Your task to perform on an android device: Go to wifi settings Image 0: 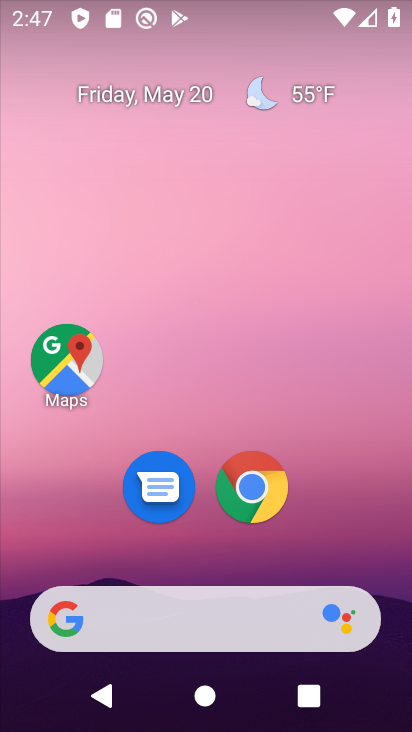
Step 0: drag from (302, 584) to (81, 0)
Your task to perform on an android device: Go to wifi settings Image 1: 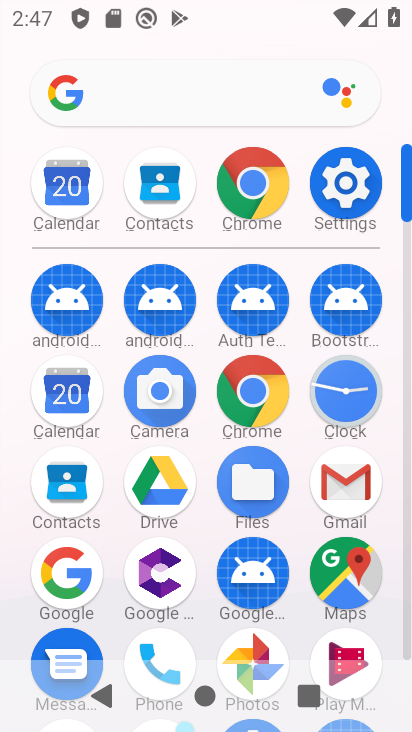
Step 1: click (344, 189)
Your task to perform on an android device: Go to wifi settings Image 2: 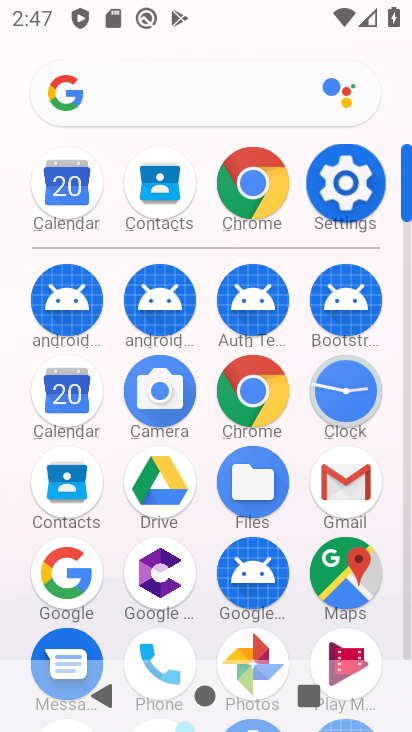
Step 2: click (344, 189)
Your task to perform on an android device: Go to wifi settings Image 3: 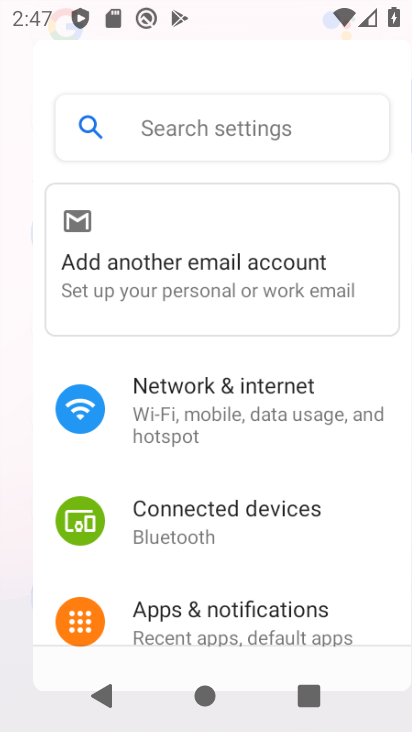
Step 3: drag from (344, 189) to (377, 198)
Your task to perform on an android device: Go to wifi settings Image 4: 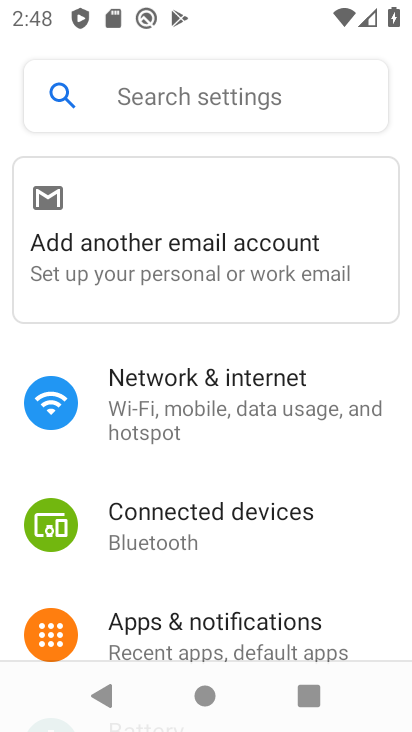
Step 4: drag from (218, 526) to (196, 105)
Your task to perform on an android device: Go to wifi settings Image 5: 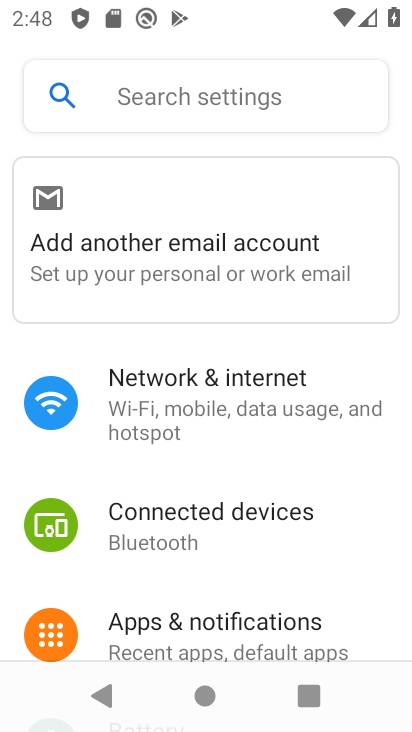
Step 5: click (188, 409)
Your task to perform on an android device: Go to wifi settings Image 6: 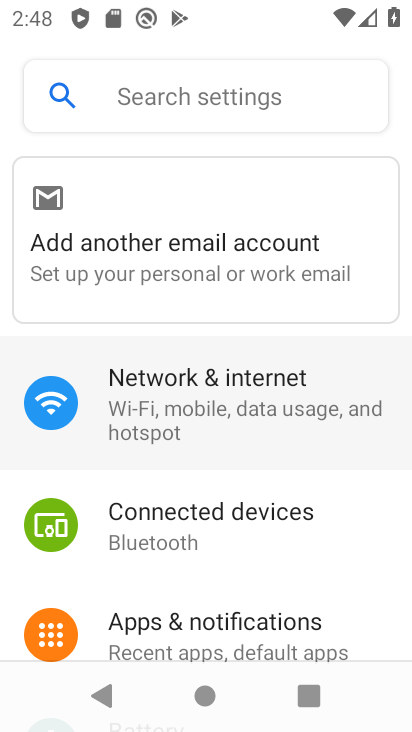
Step 6: task complete